Your task to perform on an android device: turn on wifi Image 0: 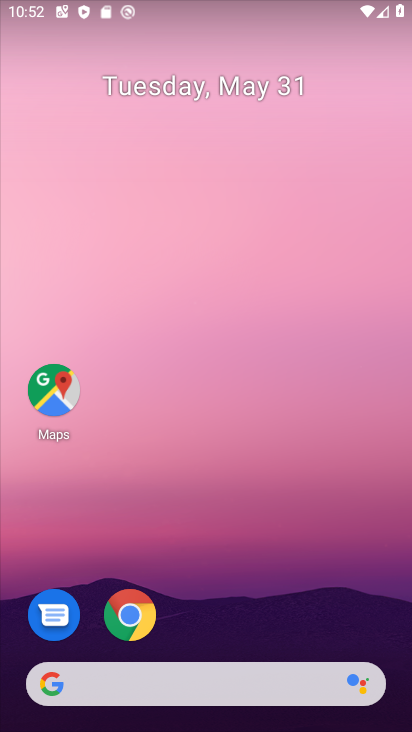
Step 0: task complete